Your task to perform on an android device: open app "Speedtest by Ookla" Image 0: 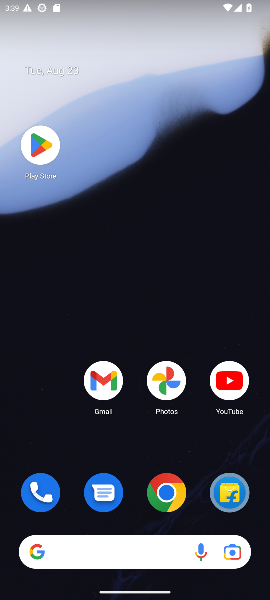
Step 0: click (36, 153)
Your task to perform on an android device: open app "Speedtest by Ookla" Image 1: 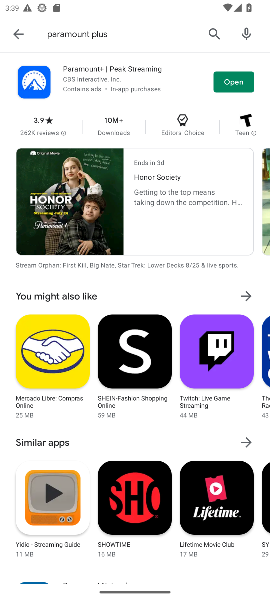
Step 1: click (210, 38)
Your task to perform on an android device: open app "Speedtest by Ookla" Image 2: 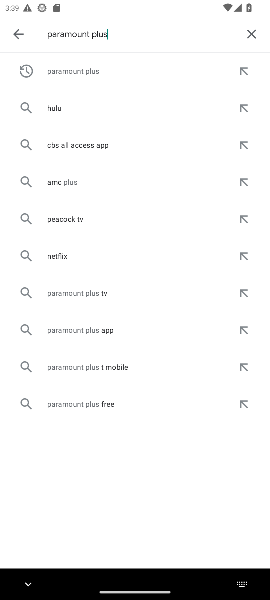
Step 2: click (246, 38)
Your task to perform on an android device: open app "Speedtest by Ookla" Image 3: 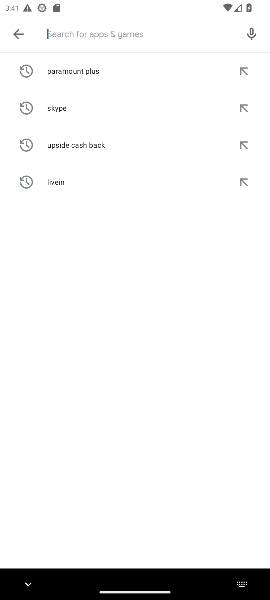
Step 3: type "speedtest ookla"
Your task to perform on an android device: open app "Speedtest by Ookla" Image 4: 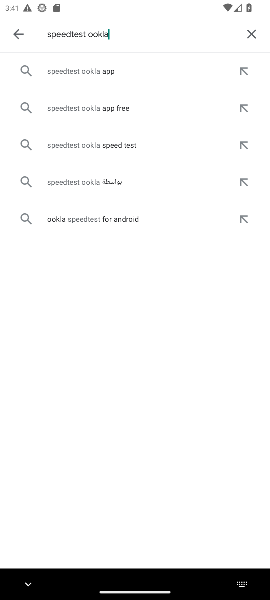
Step 4: click (87, 73)
Your task to perform on an android device: open app "Speedtest by Ookla" Image 5: 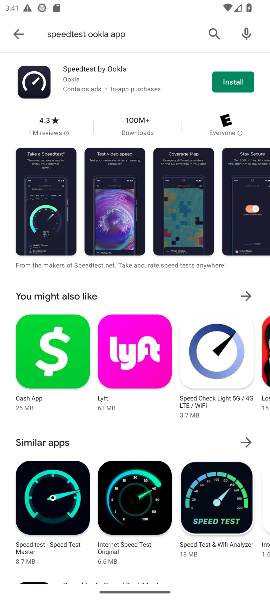
Step 5: click (252, 85)
Your task to perform on an android device: open app "Speedtest by Ookla" Image 6: 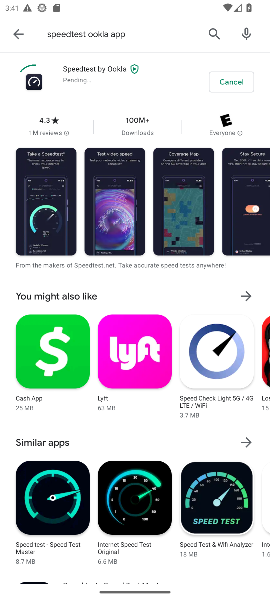
Step 6: task complete